Your task to perform on an android device: Open the stopwatch Image 0: 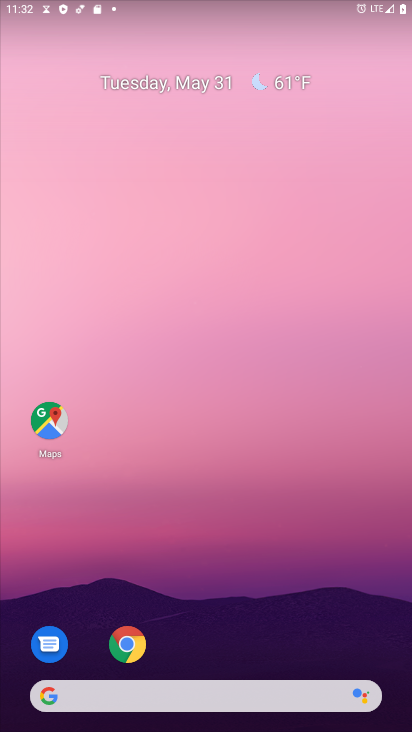
Step 0: drag from (226, 625) to (263, 188)
Your task to perform on an android device: Open the stopwatch Image 1: 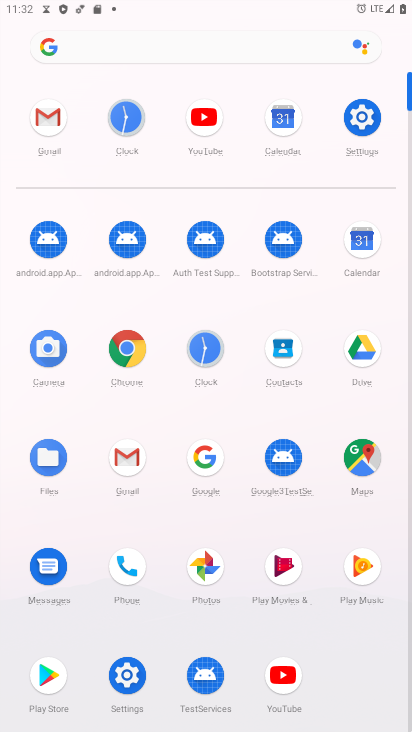
Step 1: click (206, 353)
Your task to perform on an android device: Open the stopwatch Image 2: 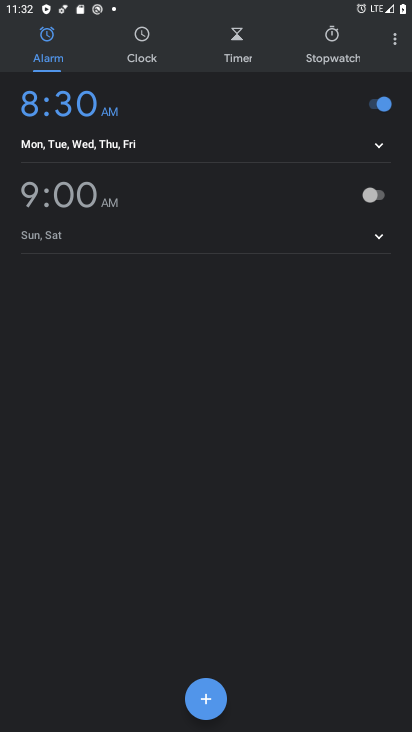
Step 2: click (311, 32)
Your task to perform on an android device: Open the stopwatch Image 3: 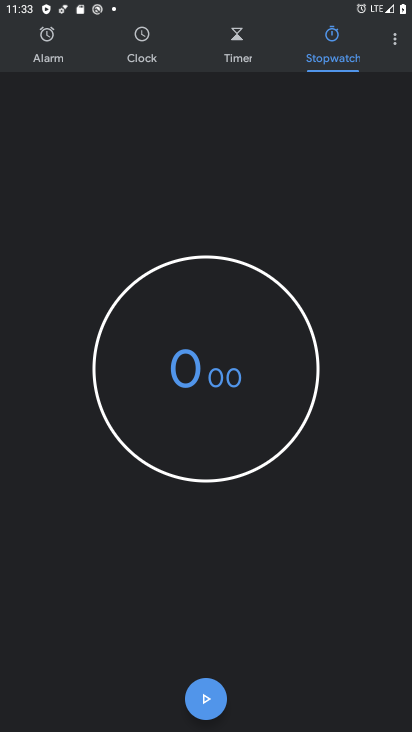
Step 3: task complete